Your task to perform on an android device: toggle sleep mode Image 0: 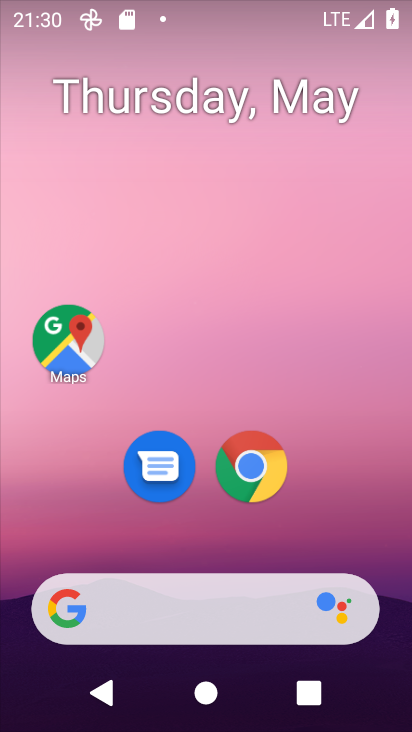
Step 0: drag from (358, 555) to (386, 92)
Your task to perform on an android device: toggle sleep mode Image 1: 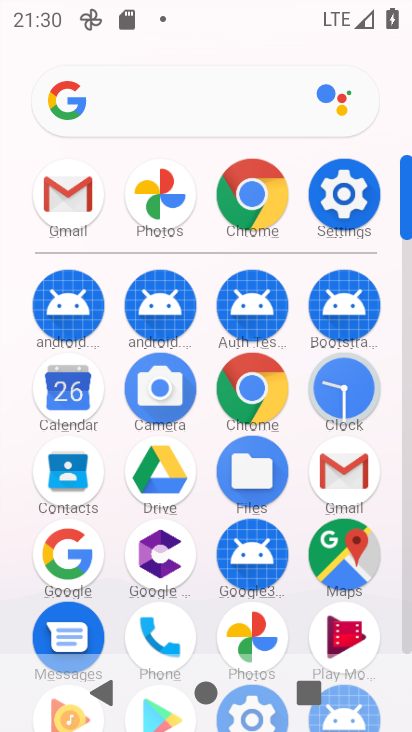
Step 1: click (317, 205)
Your task to perform on an android device: toggle sleep mode Image 2: 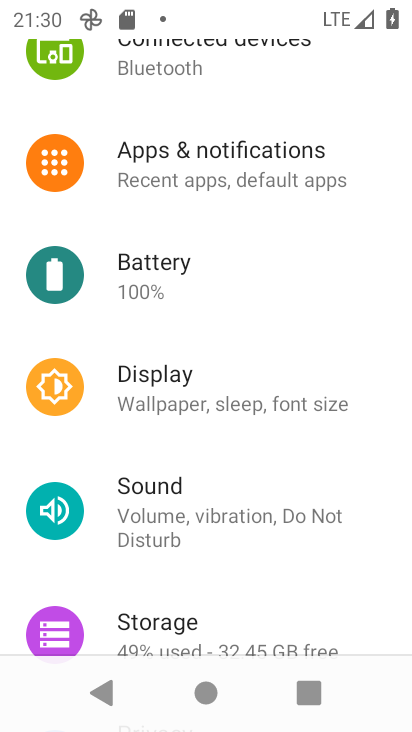
Step 2: click (275, 391)
Your task to perform on an android device: toggle sleep mode Image 3: 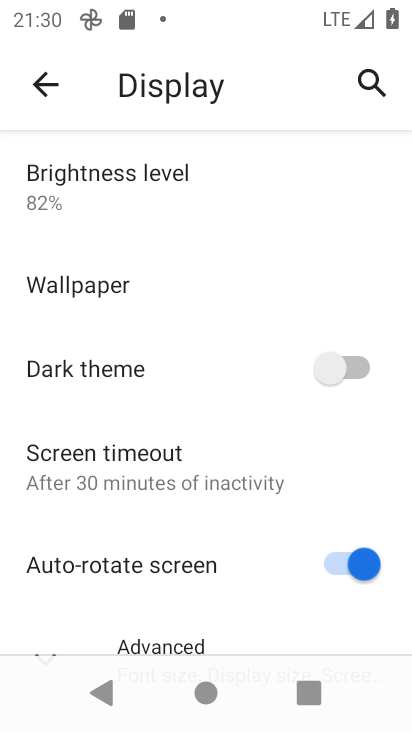
Step 3: task complete